Your task to perform on an android device: turn off location history Image 0: 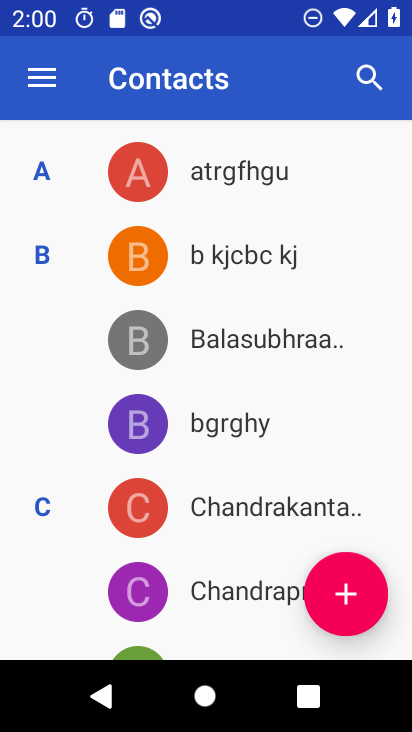
Step 0: press back button
Your task to perform on an android device: turn off location history Image 1: 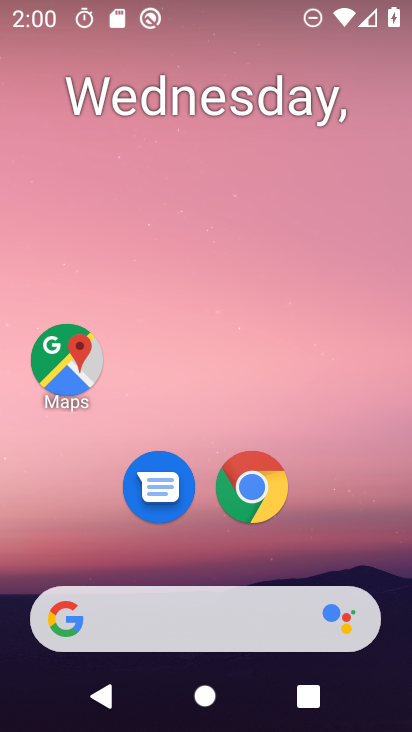
Step 1: drag from (153, 551) to (336, 10)
Your task to perform on an android device: turn off location history Image 2: 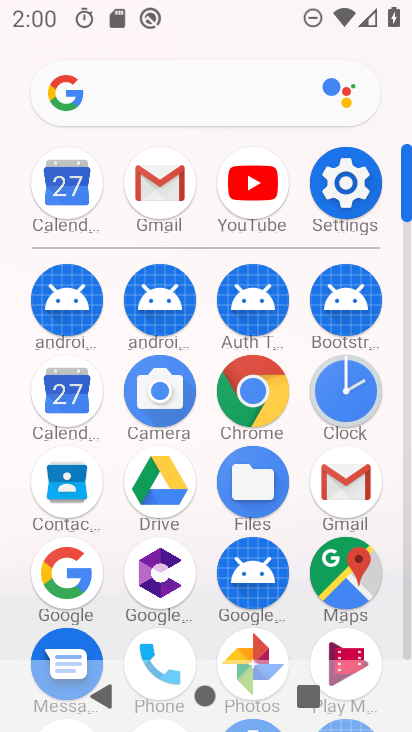
Step 2: click (355, 181)
Your task to perform on an android device: turn off location history Image 3: 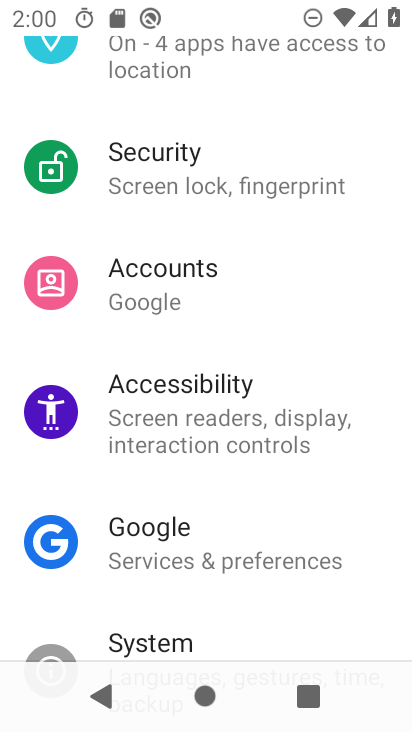
Step 3: drag from (253, 181) to (217, 620)
Your task to perform on an android device: turn off location history Image 4: 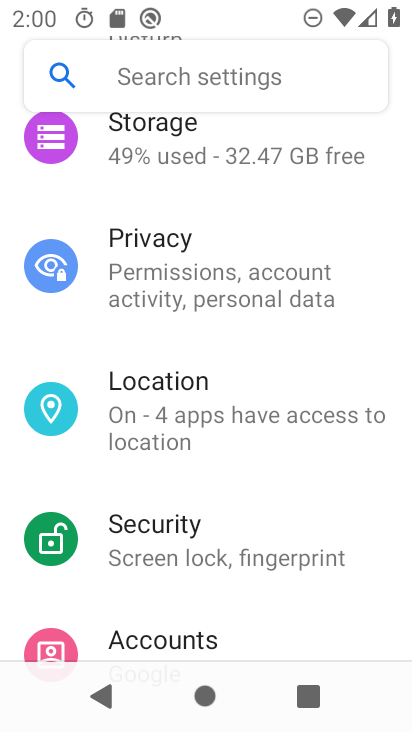
Step 4: click (175, 431)
Your task to perform on an android device: turn off location history Image 5: 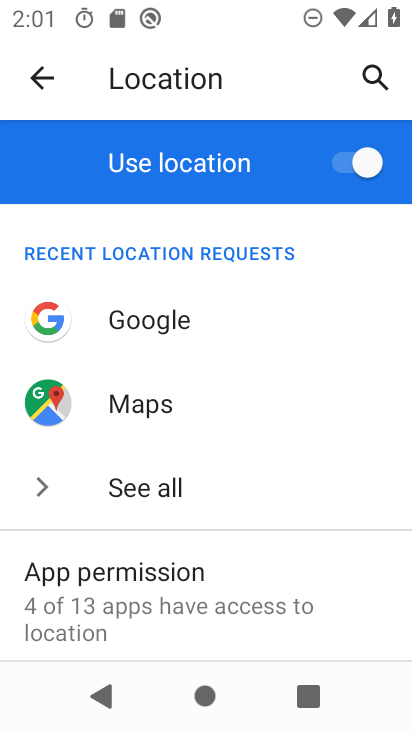
Step 5: drag from (193, 616) to (208, 236)
Your task to perform on an android device: turn off location history Image 6: 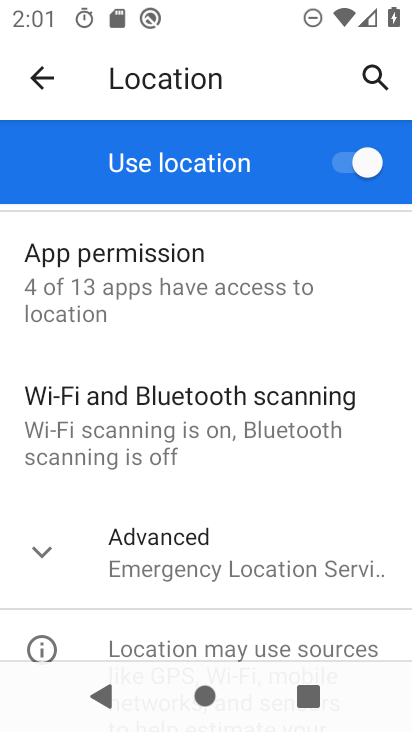
Step 6: click (156, 548)
Your task to perform on an android device: turn off location history Image 7: 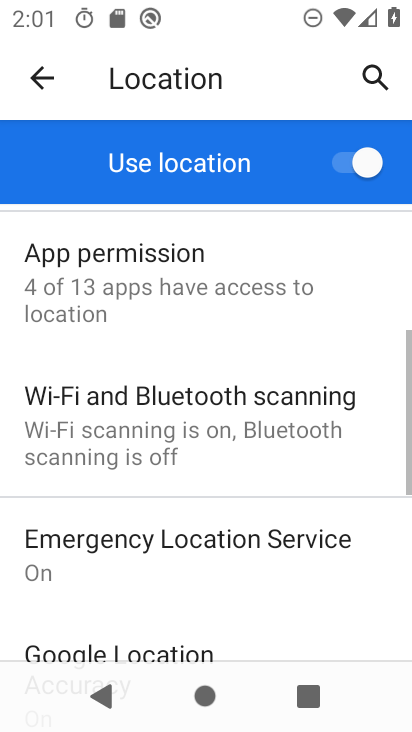
Step 7: drag from (166, 585) to (242, 197)
Your task to perform on an android device: turn off location history Image 8: 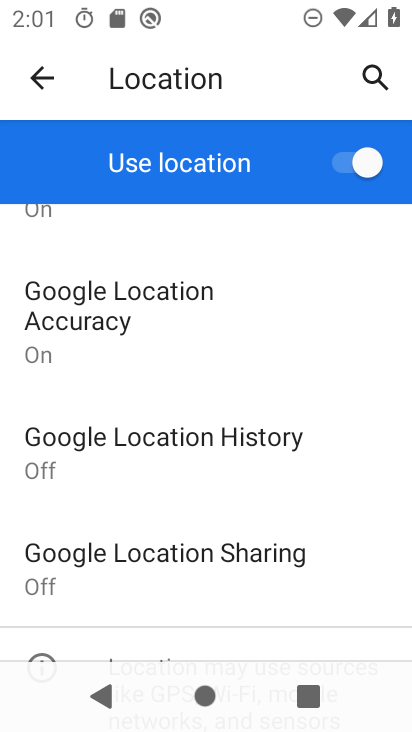
Step 8: click (235, 436)
Your task to perform on an android device: turn off location history Image 9: 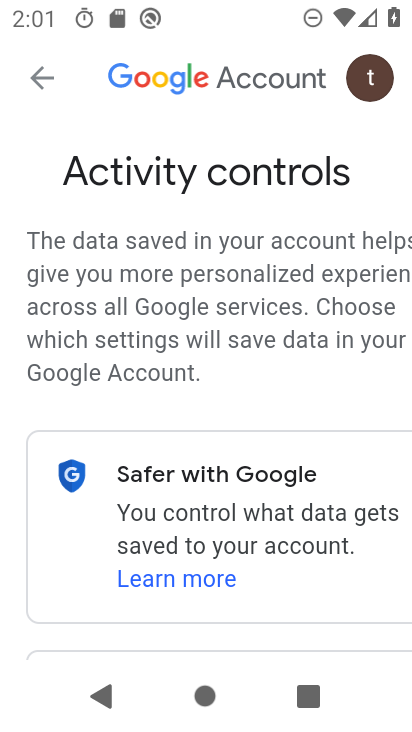
Step 9: drag from (263, 526) to (315, 51)
Your task to perform on an android device: turn off location history Image 10: 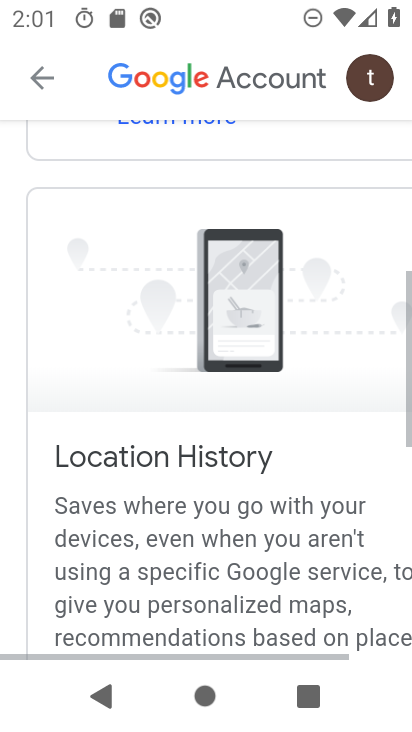
Step 10: drag from (238, 604) to (218, 144)
Your task to perform on an android device: turn off location history Image 11: 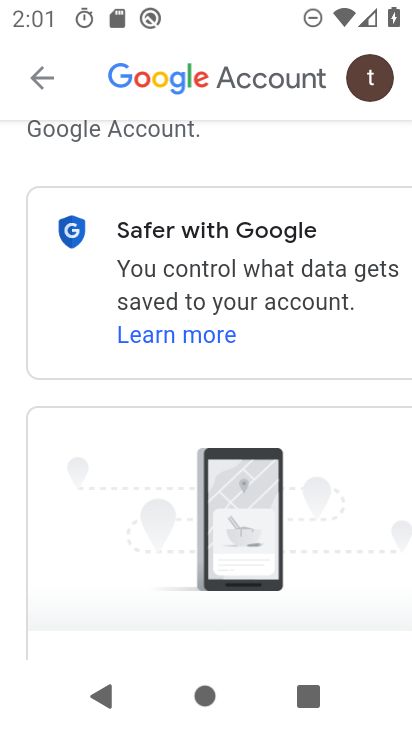
Step 11: drag from (237, 555) to (279, 220)
Your task to perform on an android device: turn off location history Image 12: 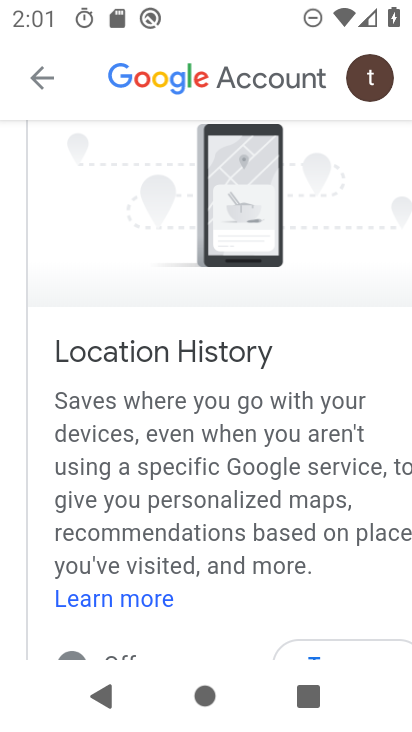
Step 12: drag from (335, 560) to (336, 174)
Your task to perform on an android device: turn off location history Image 13: 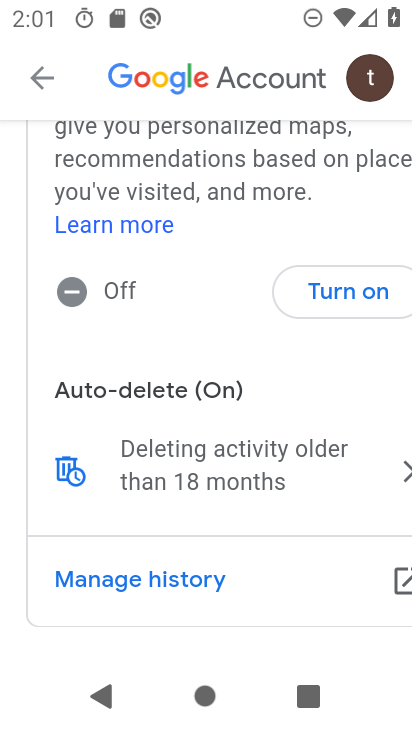
Step 13: click (370, 298)
Your task to perform on an android device: turn off location history Image 14: 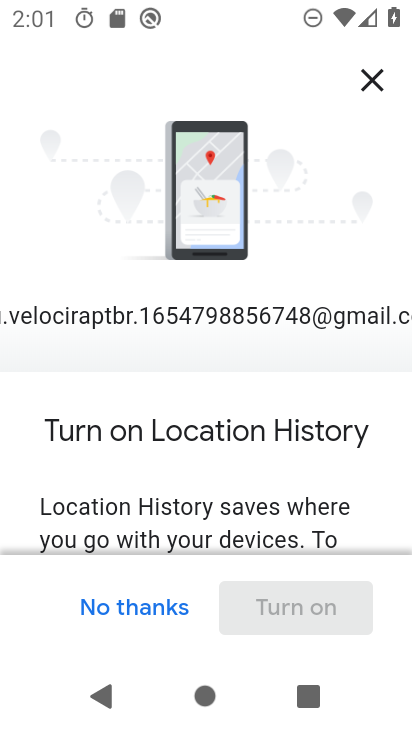
Step 14: click (153, 607)
Your task to perform on an android device: turn off location history Image 15: 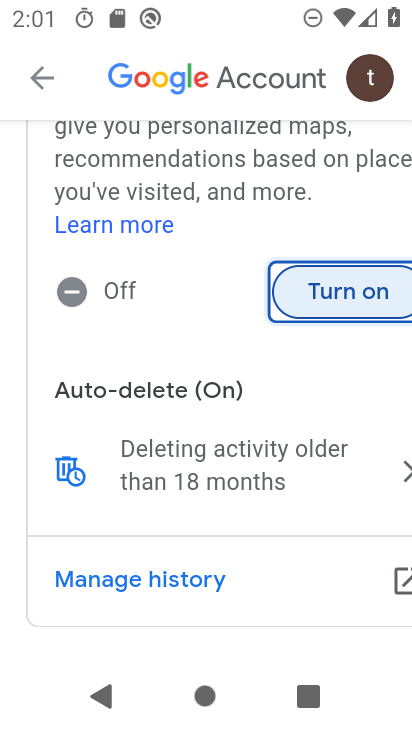
Step 15: task complete